Your task to perform on an android device: read, delete, or share a saved page in the chrome app Image 0: 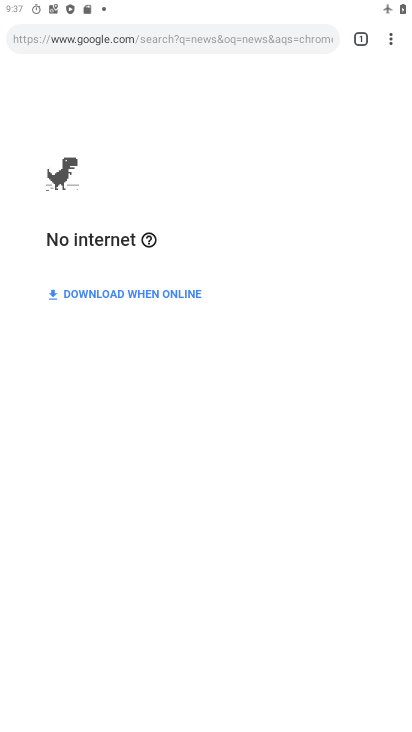
Step 0: press home button
Your task to perform on an android device: read, delete, or share a saved page in the chrome app Image 1: 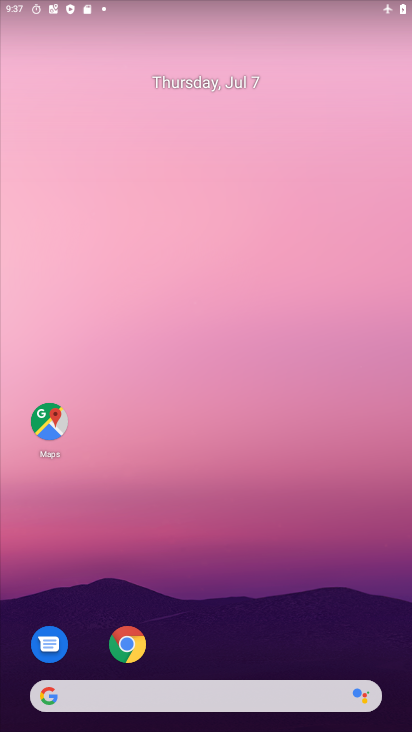
Step 1: drag from (231, 613) to (242, 53)
Your task to perform on an android device: read, delete, or share a saved page in the chrome app Image 2: 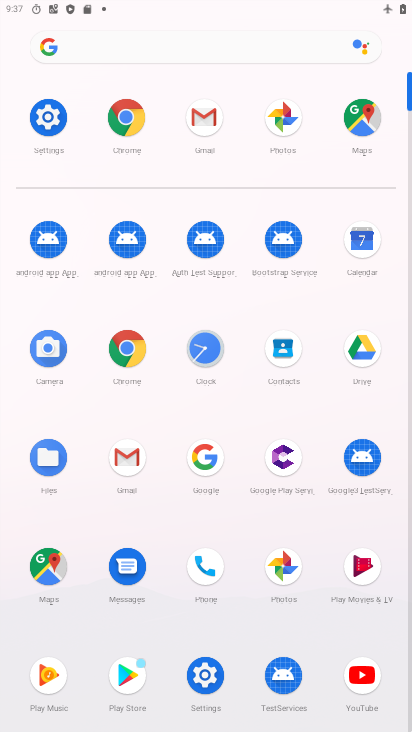
Step 2: click (130, 356)
Your task to perform on an android device: read, delete, or share a saved page in the chrome app Image 3: 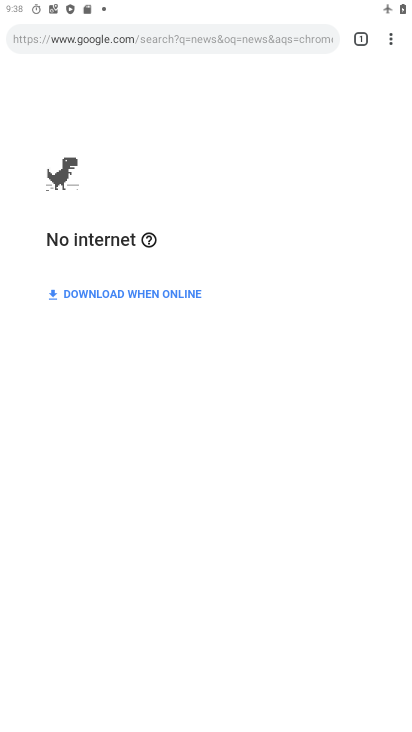
Step 3: task complete